Your task to perform on an android device: toggle javascript in the chrome app Image 0: 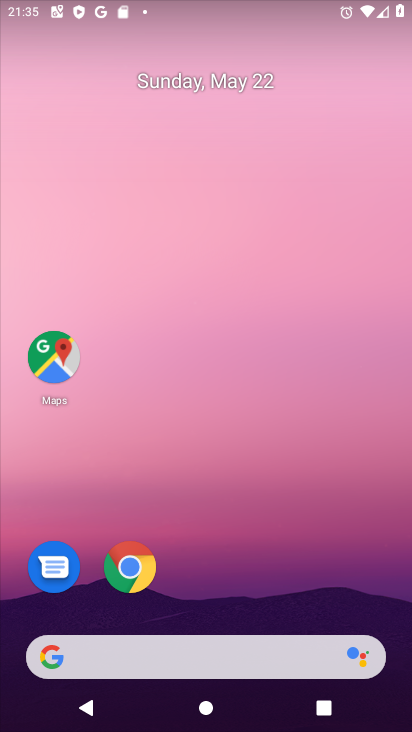
Step 0: click (132, 579)
Your task to perform on an android device: toggle javascript in the chrome app Image 1: 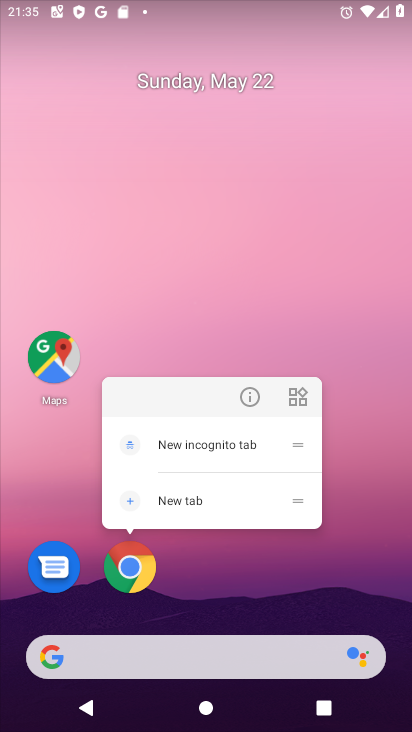
Step 1: click (132, 568)
Your task to perform on an android device: toggle javascript in the chrome app Image 2: 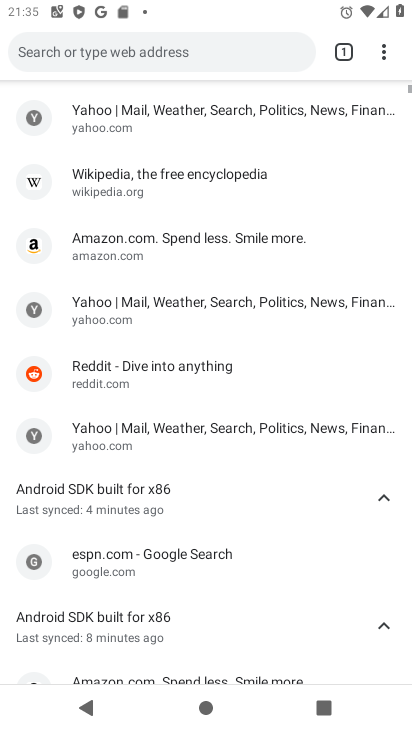
Step 2: click (378, 55)
Your task to perform on an android device: toggle javascript in the chrome app Image 3: 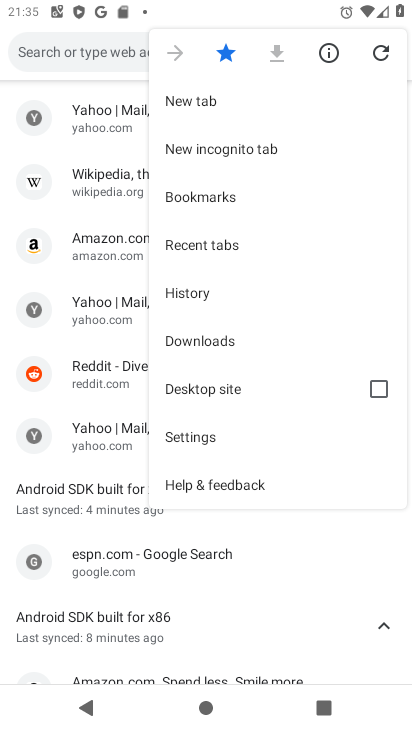
Step 3: click (204, 438)
Your task to perform on an android device: toggle javascript in the chrome app Image 4: 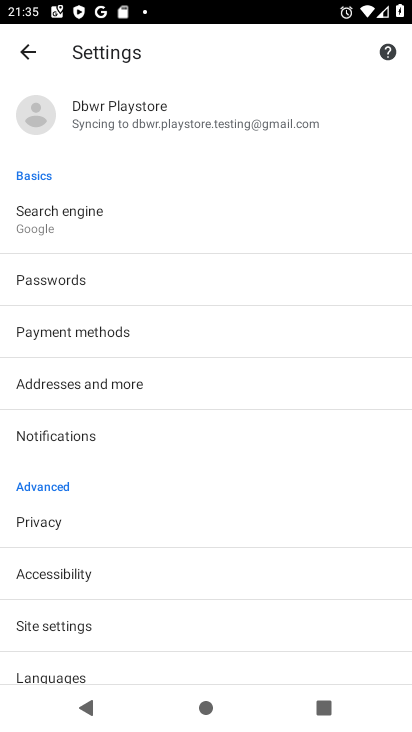
Step 4: drag from (113, 638) to (139, 501)
Your task to perform on an android device: toggle javascript in the chrome app Image 5: 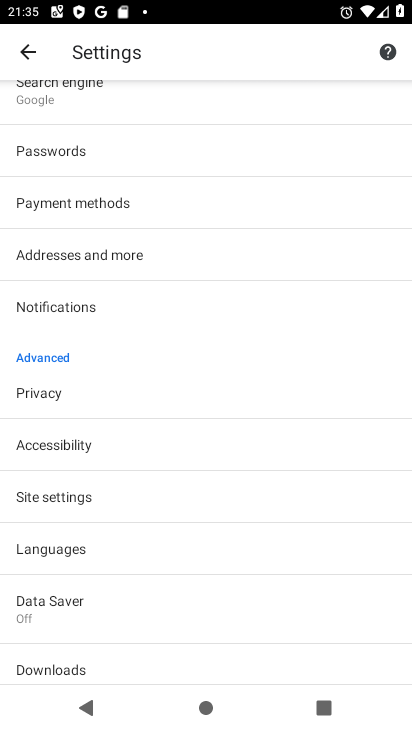
Step 5: click (64, 578)
Your task to perform on an android device: toggle javascript in the chrome app Image 6: 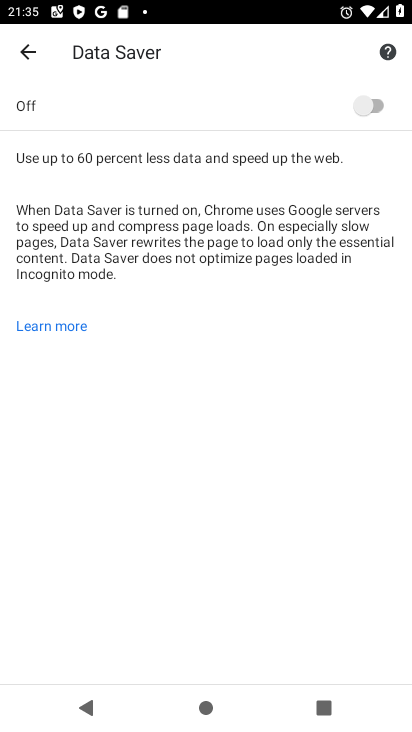
Step 6: click (374, 108)
Your task to perform on an android device: toggle javascript in the chrome app Image 7: 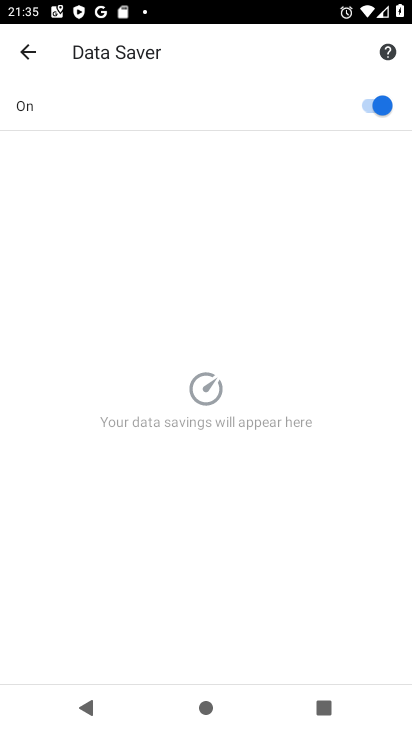
Step 7: task complete